Your task to perform on an android device: Is it going to rain tomorrow? Image 0: 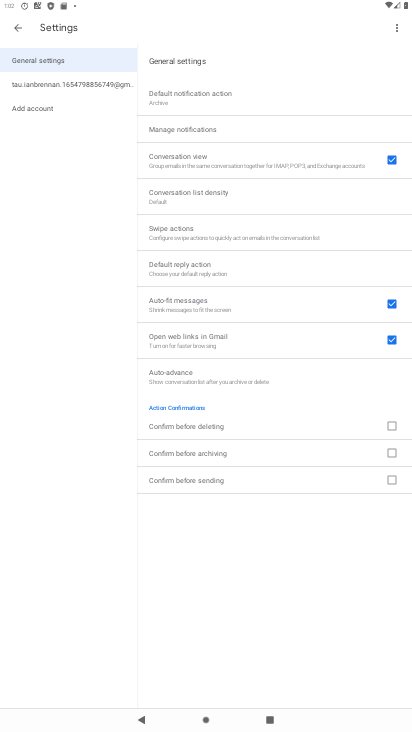
Step 0: press home button
Your task to perform on an android device: Is it going to rain tomorrow? Image 1: 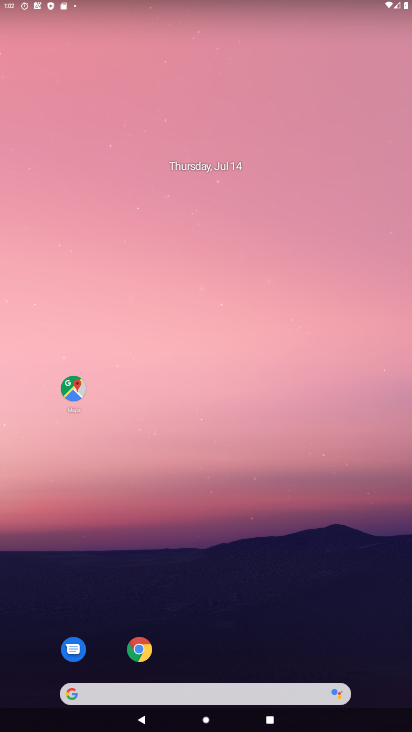
Step 1: drag from (266, 638) to (251, 126)
Your task to perform on an android device: Is it going to rain tomorrow? Image 2: 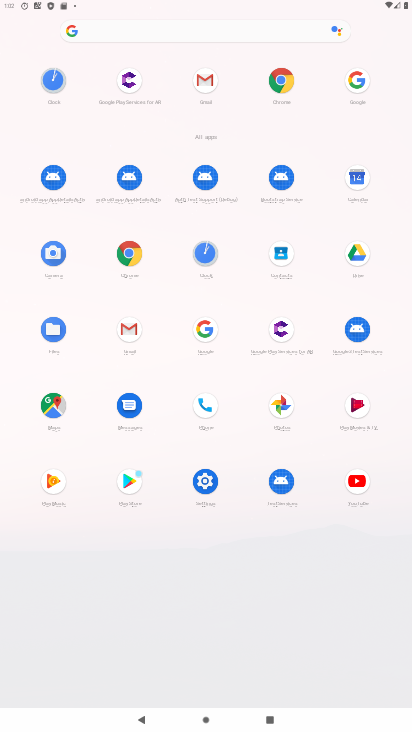
Step 2: click (207, 322)
Your task to perform on an android device: Is it going to rain tomorrow? Image 3: 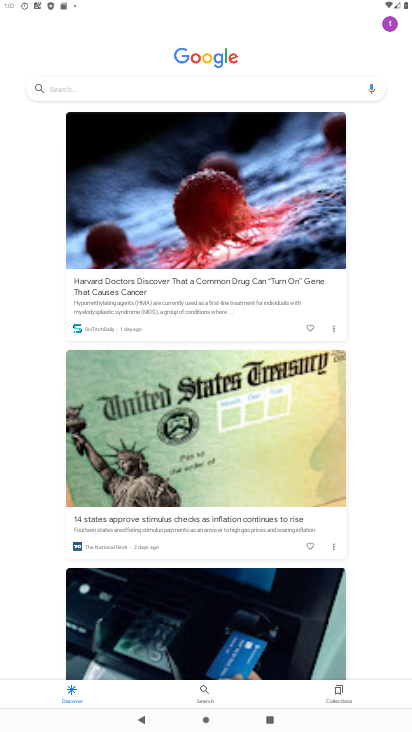
Step 3: click (253, 75)
Your task to perform on an android device: Is it going to rain tomorrow? Image 4: 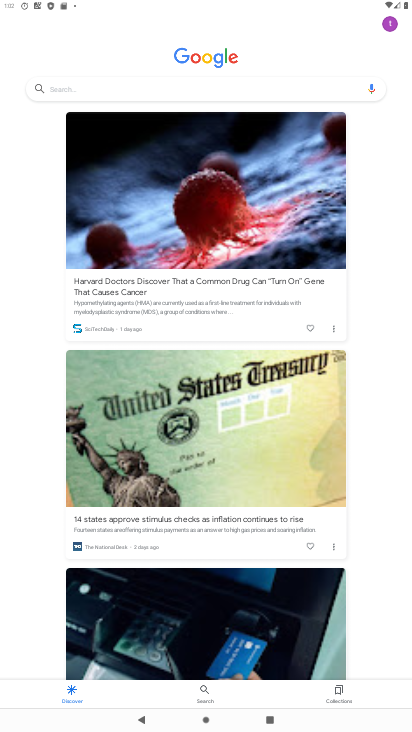
Step 4: click (74, 80)
Your task to perform on an android device: Is it going to rain tomorrow? Image 5: 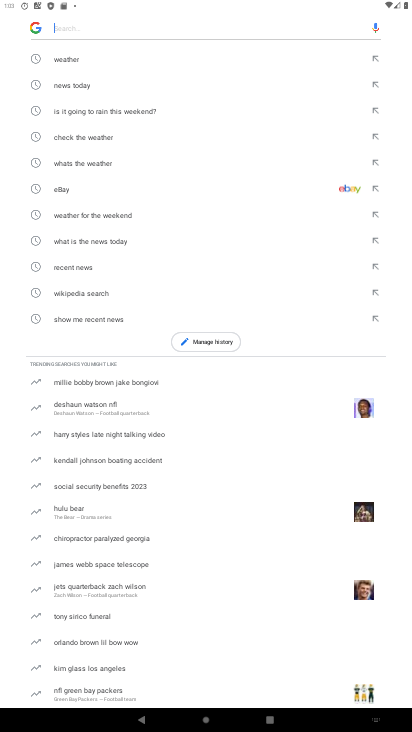
Step 5: click (69, 53)
Your task to perform on an android device: Is it going to rain tomorrow? Image 6: 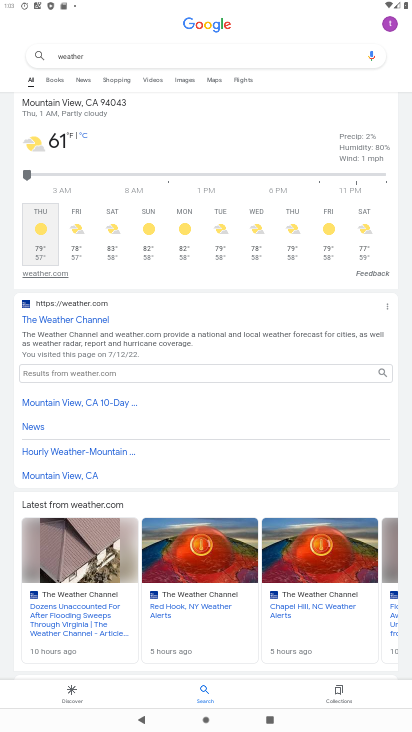
Step 6: task complete